Your task to perform on an android device: Show me popular games on the Play Store Image 0: 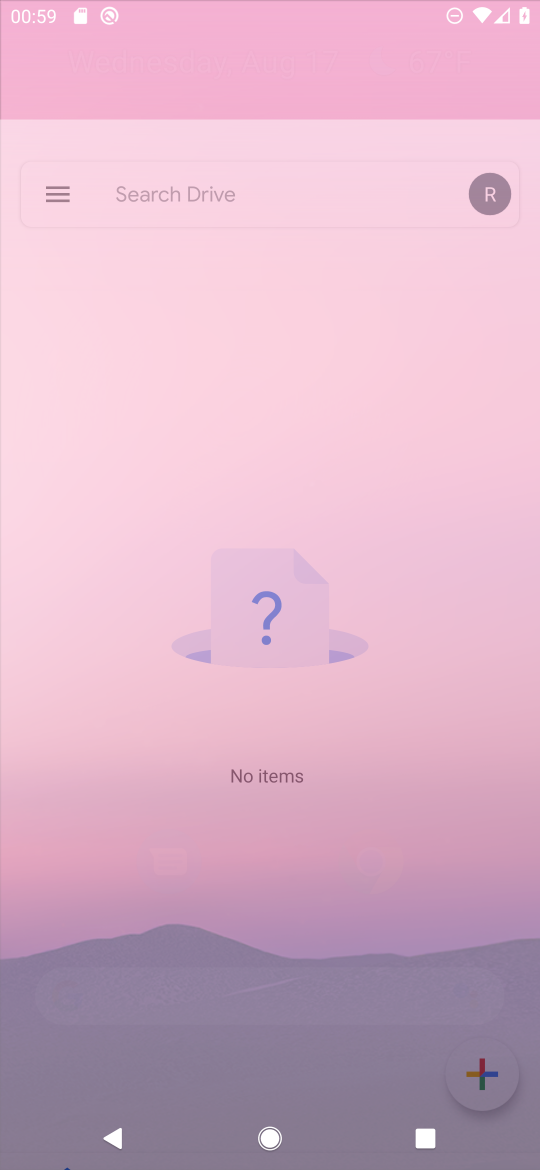
Step 0: click (379, 925)
Your task to perform on an android device: Show me popular games on the Play Store Image 1: 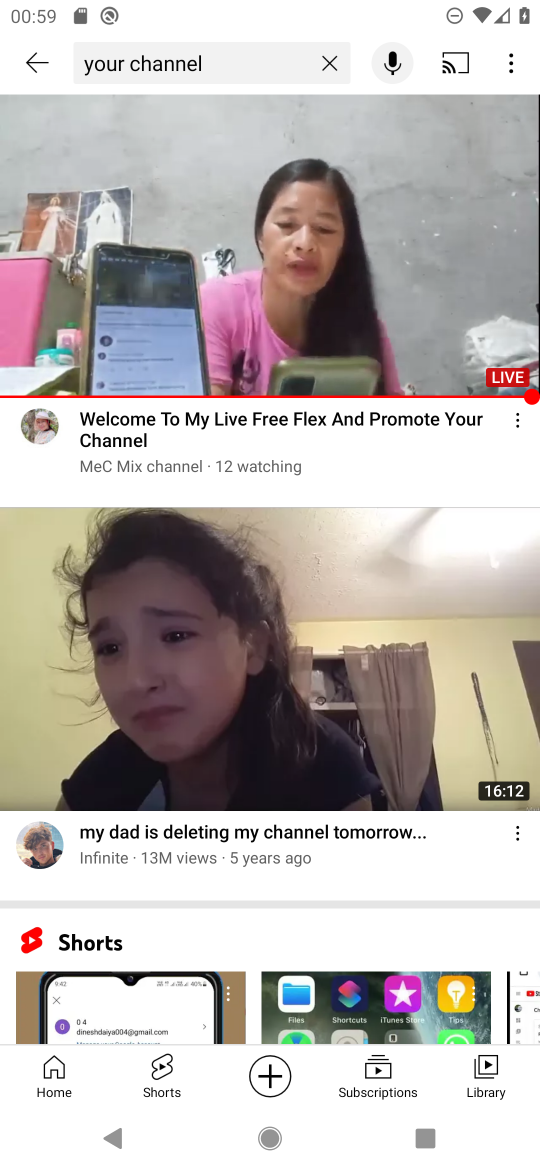
Step 1: press back button
Your task to perform on an android device: Show me popular games on the Play Store Image 2: 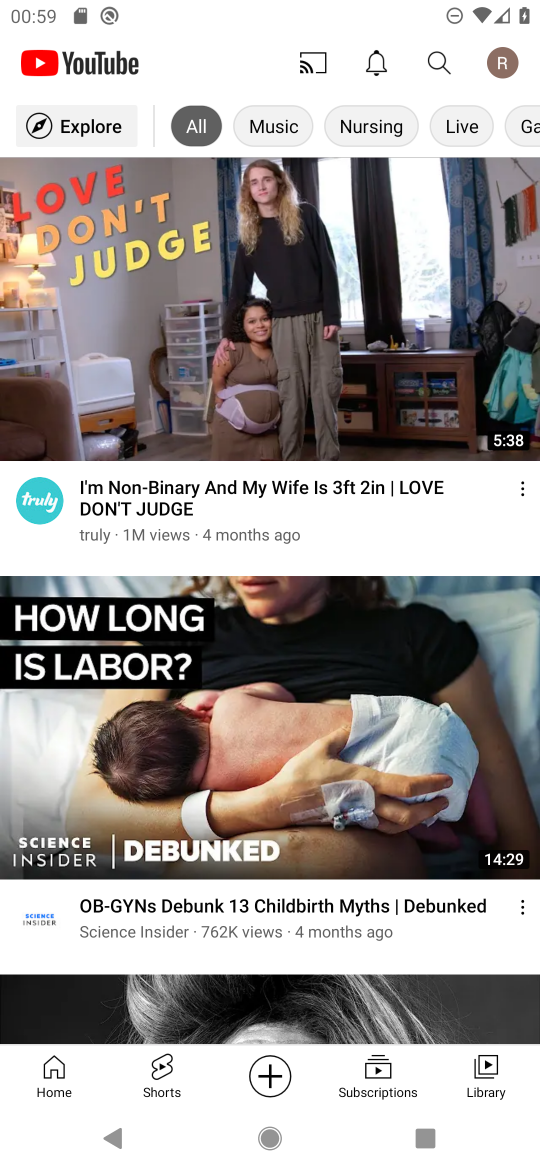
Step 2: press back button
Your task to perform on an android device: Show me popular games on the Play Store Image 3: 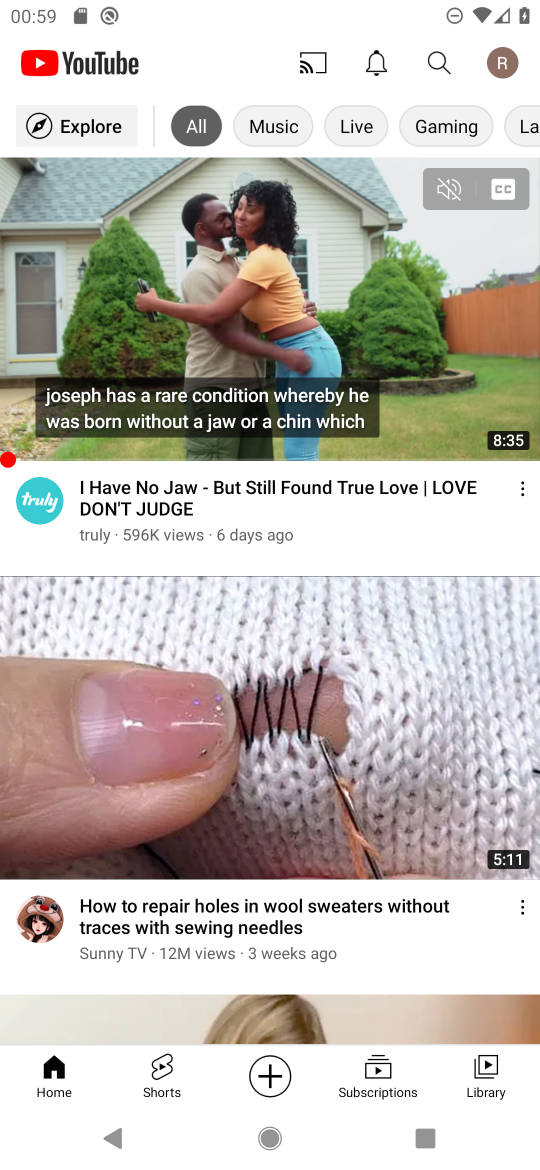
Step 3: press back button
Your task to perform on an android device: Show me popular games on the Play Store Image 4: 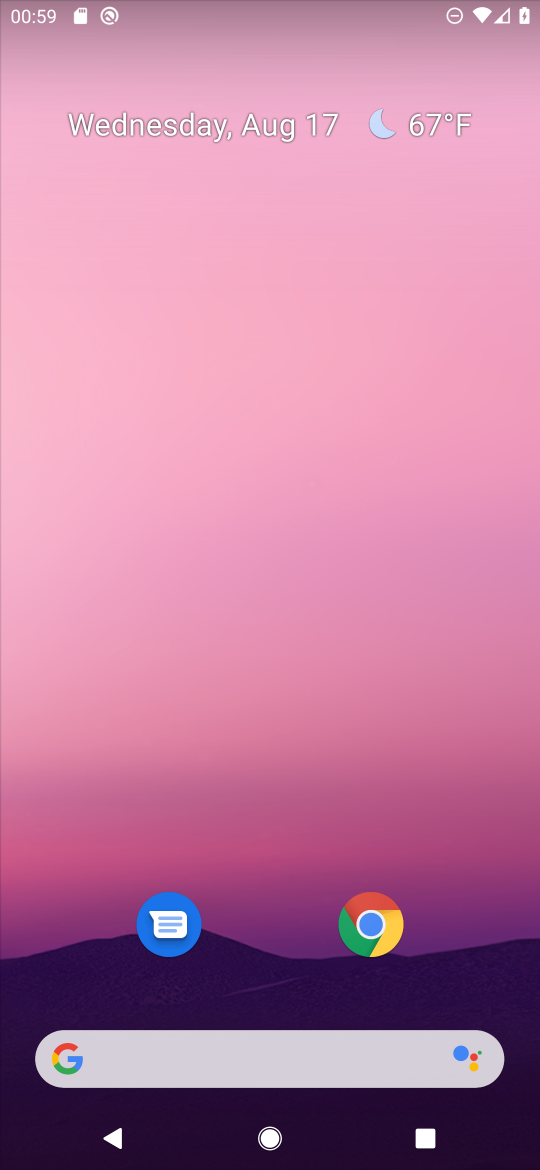
Step 4: drag from (241, 994) to (317, 123)
Your task to perform on an android device: Show me popular games on the Play Store Image 5: 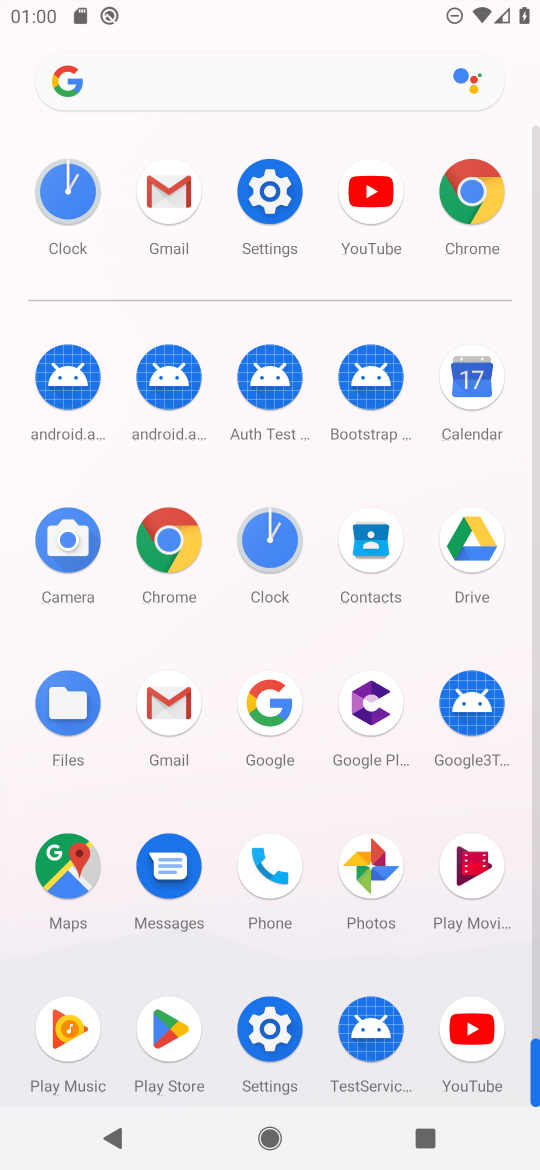
Step 5: click (185, 1017)
Your task to perform on an android device: Show me popular games on the Play Store Image 6: 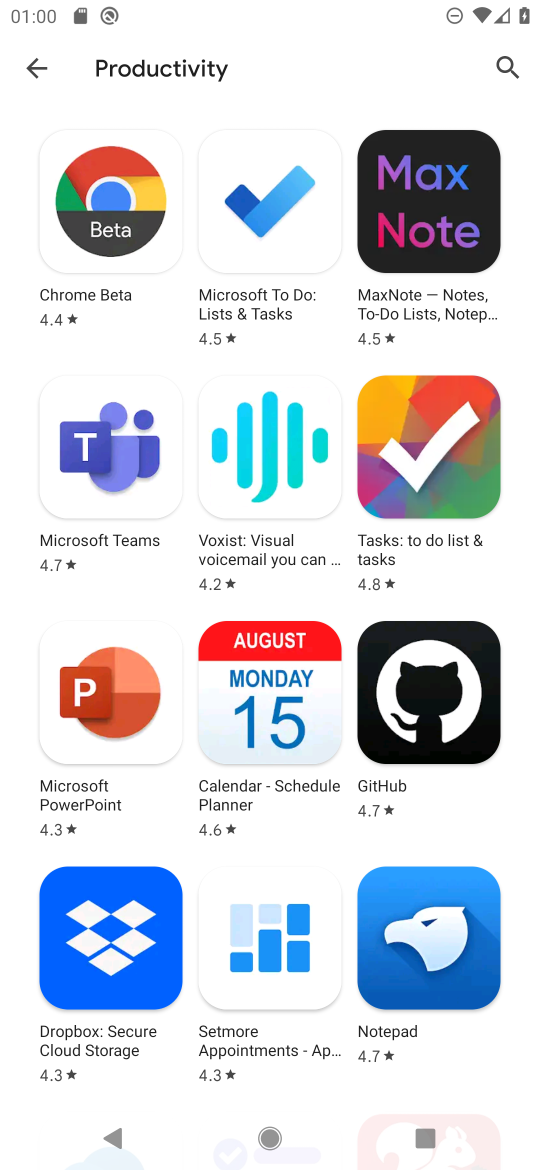
Step 6: click (25, 71)
Your task to perform on an android device: Show me popular games on the Play Store Image 7: 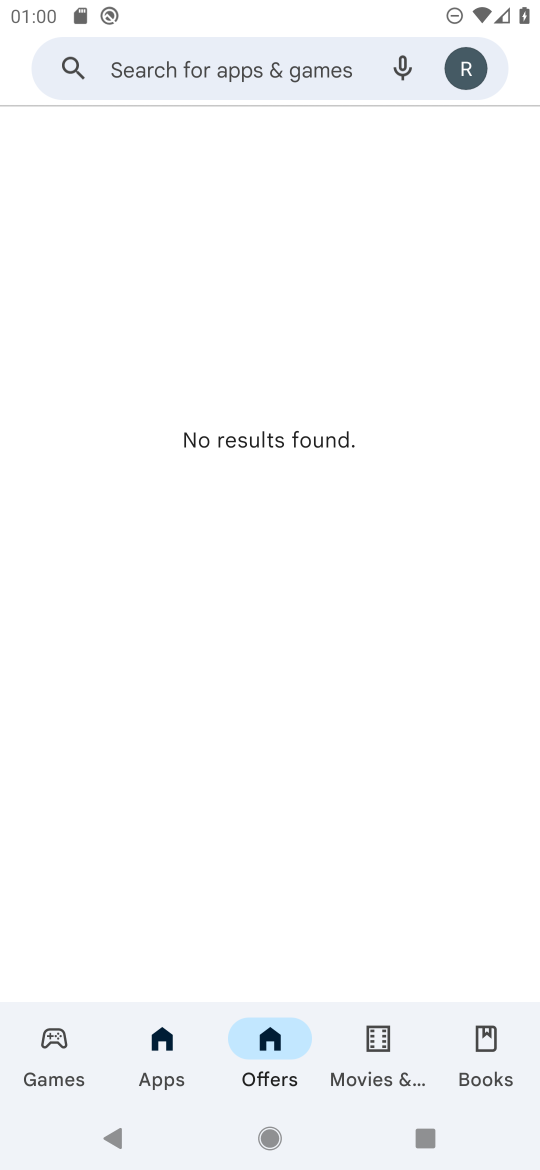
Step 7: click (60, 1061)
Your task to perform on an android device: Show me popular games on the Play Store Image 8: 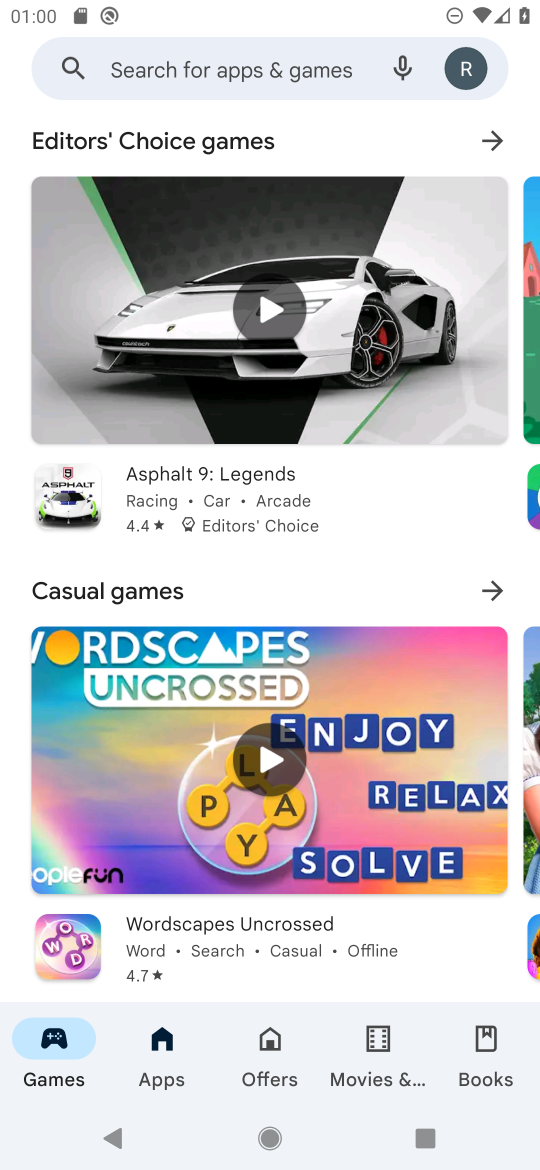
Step 8: click (344, 818)
Your task to perform on an android device: Show me popular games on the Play Store Image 9: 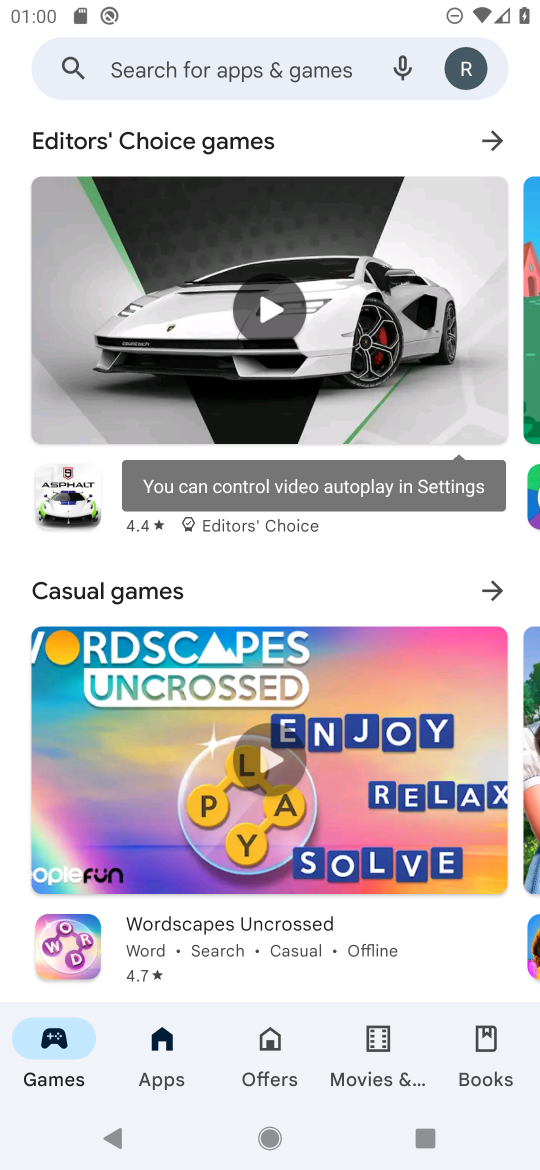
Step 9: task complete